Your task to perform on an android device: open a new tab in the chrome app Image 0: 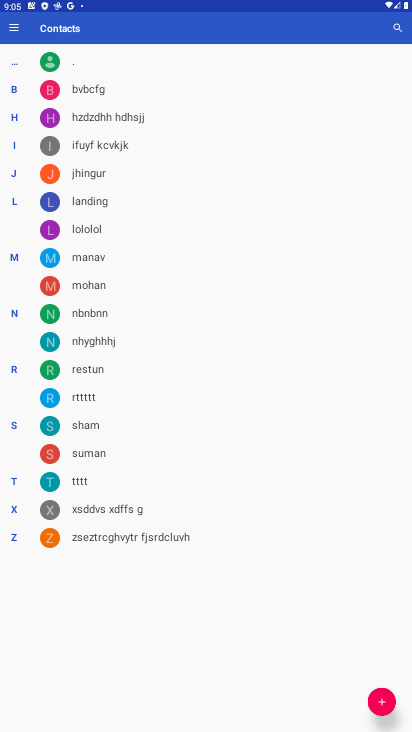
Step 0: press home button
Your task to perform on an android device: open a new tab in the chrome app Image 1: 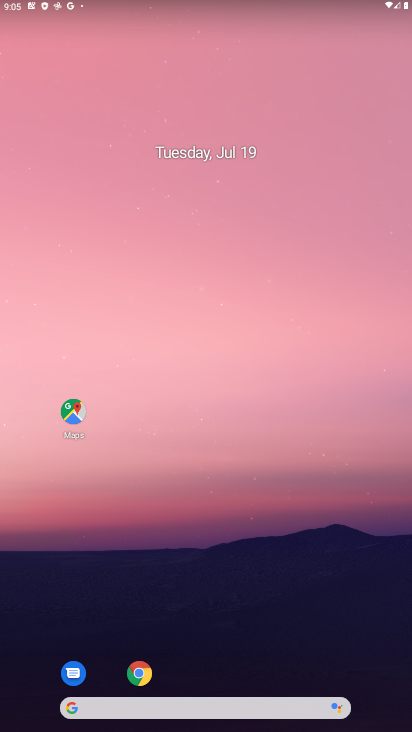
Step 1: click (145, 684)
Your task to perform on an android device: open a new tab in the chrome app Image 2: 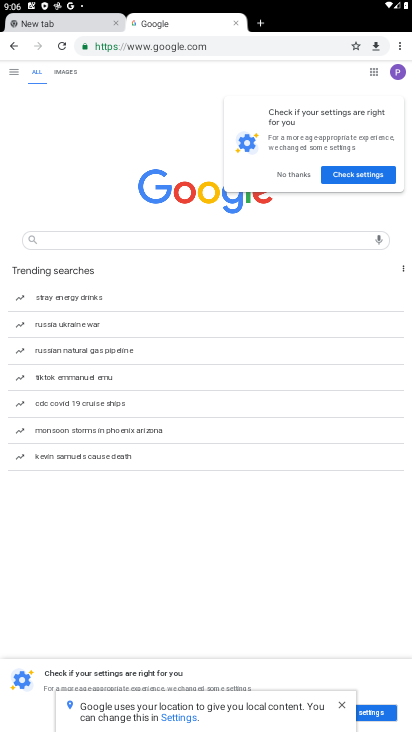
Step 2: click (263, 17)
Your task to perform on an android device: open a new tab in the chrome app Image 3: 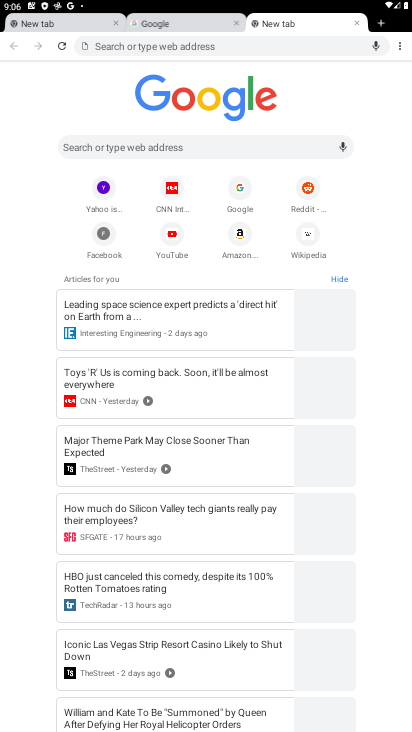
Step 3: task complete